Your task to perform on an android device: What's on my calendar today? Image 0: 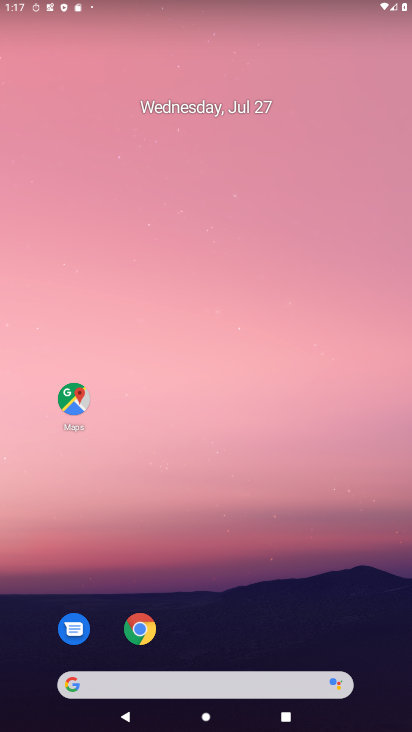
Step 0: drag from (325, 600) to (128, 51)
Your task to perform on an android device: What's on my calendar today? Image 1: 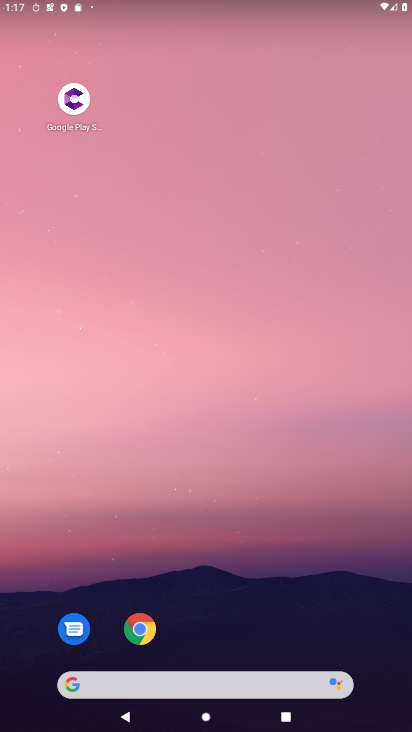
Step 1: drag from (311, 623) to (165, 26)
Your task to perform on an android device: What's on my calendar today? Image 2: 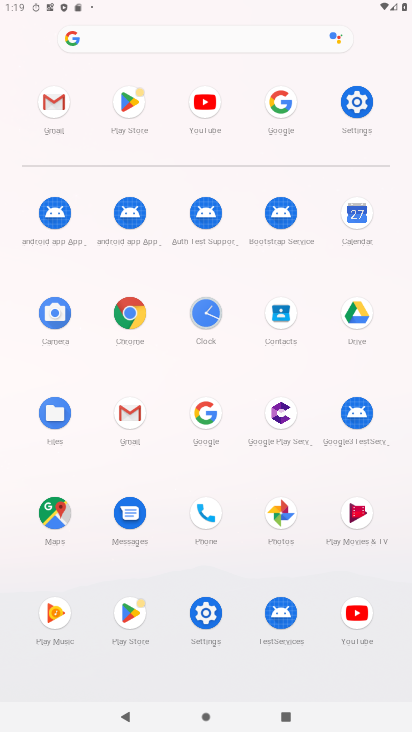
Step 2: click (355, 217)
Your task to perform on an android device: What's on my calendar today? Image 3: 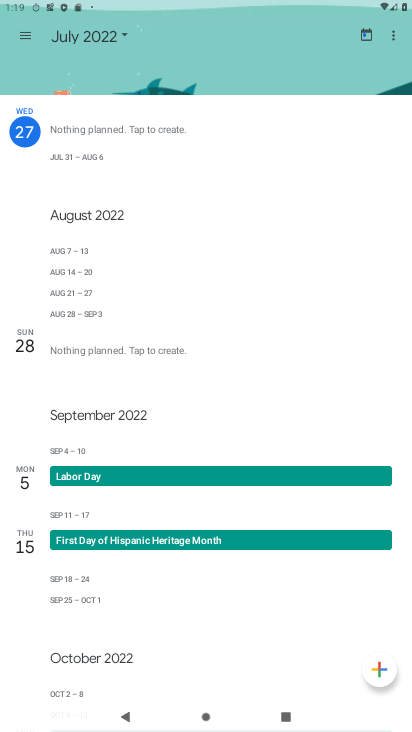
Step 3: task complete